Your task to perform on an android device: Open Google Chrome Image 0: 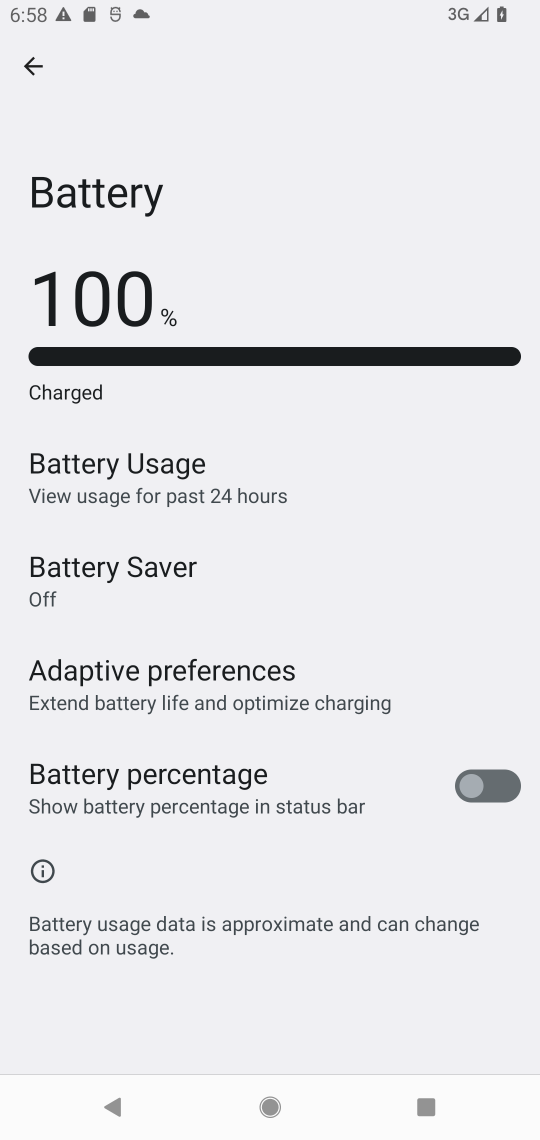
Step 0: press home button
Your task to perform on an android device: Open Google Chrome Image 1: 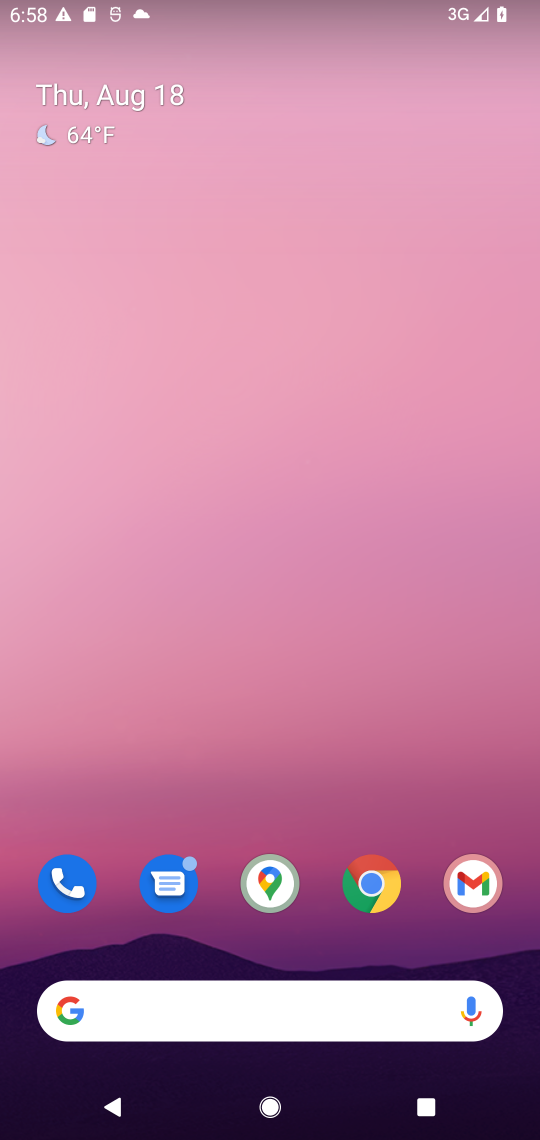
Step 1: click (386, 892)
Your task to perform on an android device: Open Google Chrome Image 2: 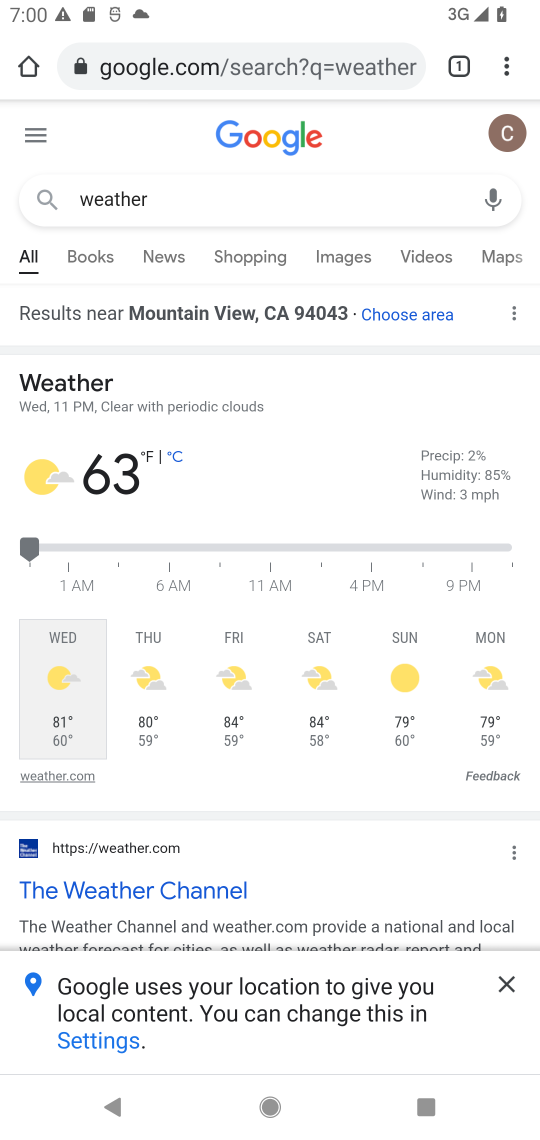
Step 2: task complete